Your task to perform on an android device: Go to display settings Image 0: 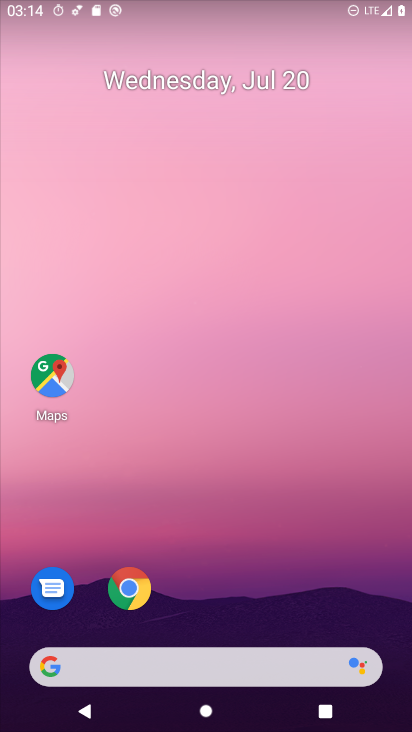
Step 0: click (38, 398)
Your task to perform on an android device: Go to display settings Image 1: 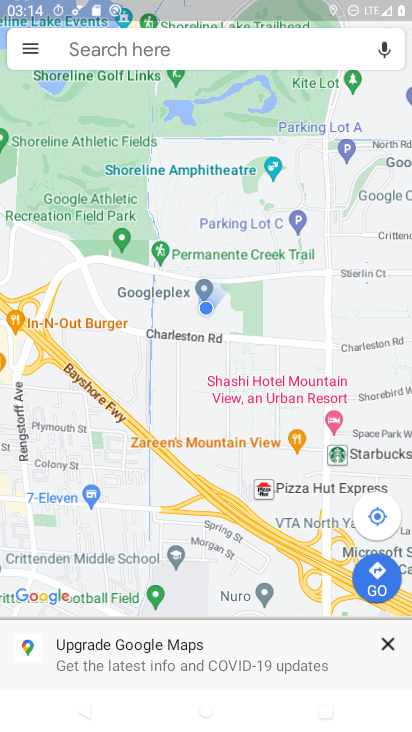
Step 1: press home button
Your task to perform on an android device: Go to display settings Image 2: 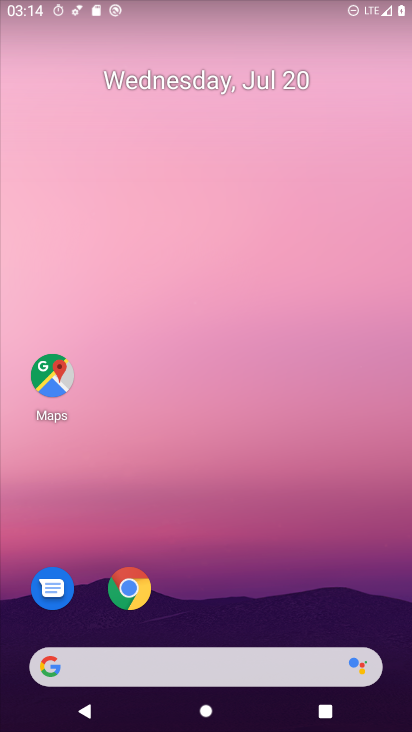
Step 2: drag from (275, 623) to (227, 56)
Your task to perform on an android device: Go to display settings Image 3: 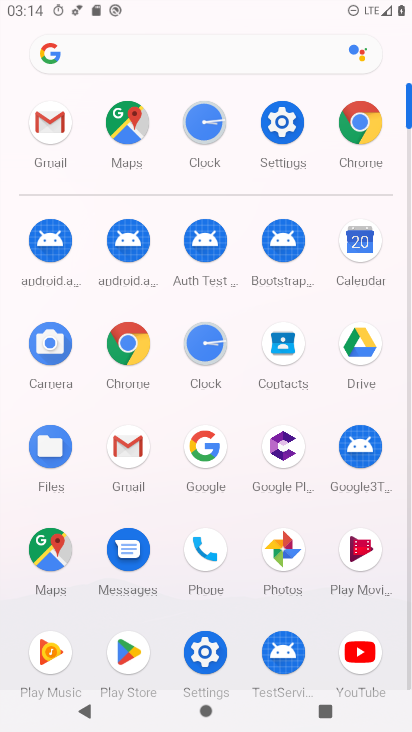
Step 3: click (278, 106)
Your task to perform on an android device: Go to display settings Image 4: 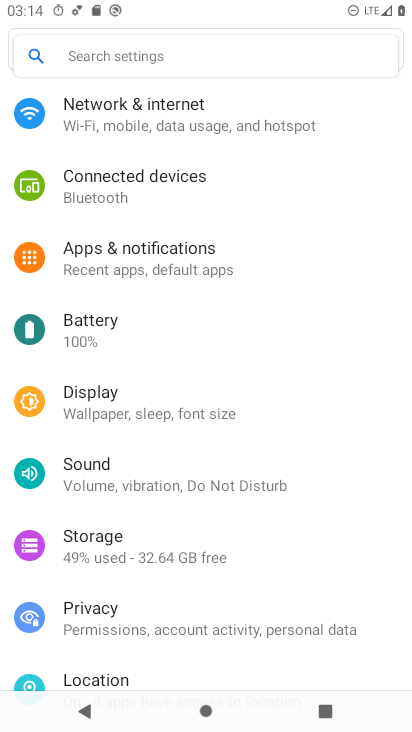
Step 4: click (54, 397)
Your task to perform on an android device: Go to display settings Image 5: 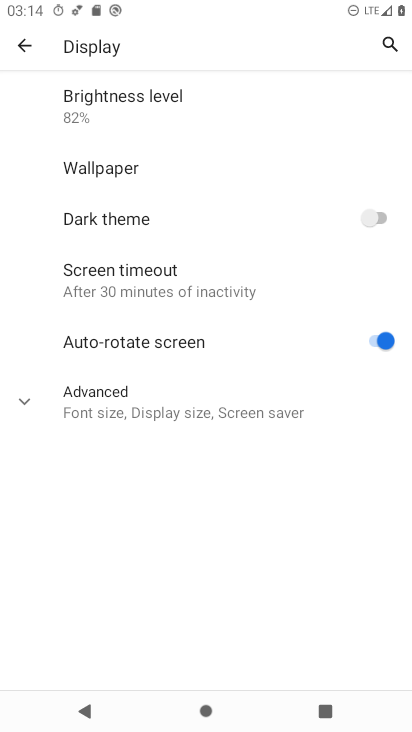
Step 5: click (54, 397)
Your task to perform on an android device: Go to display settings Image 6: 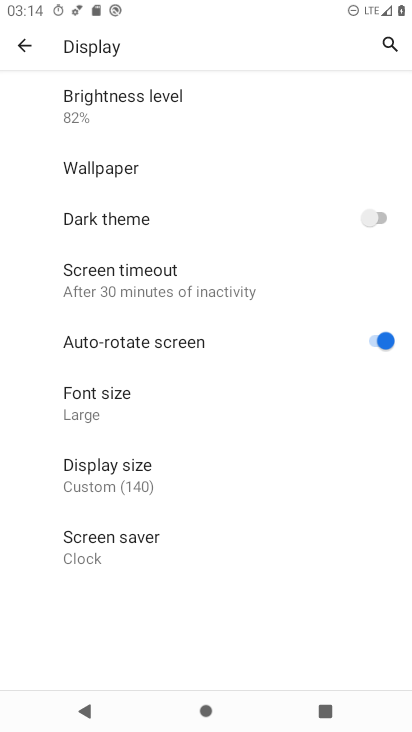
Step 6: task complete